Your task to perform on an android device: Open Wikipedia Image 0: 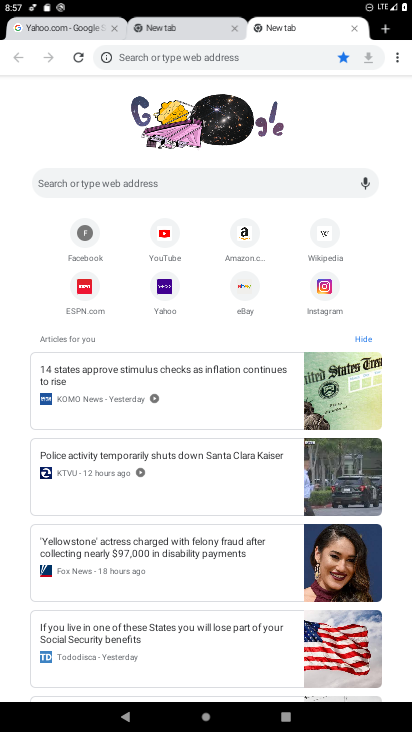
Step 0: click (265, 184)
Your task to perform on an android device: Open Wikipedia Image 1: 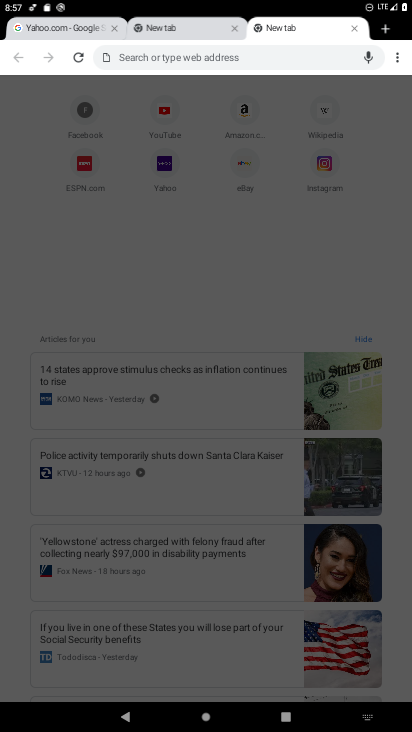
Step 1: type "Wikipedia"
Your task to perform on an android device: Open Wikipedia Image 2: 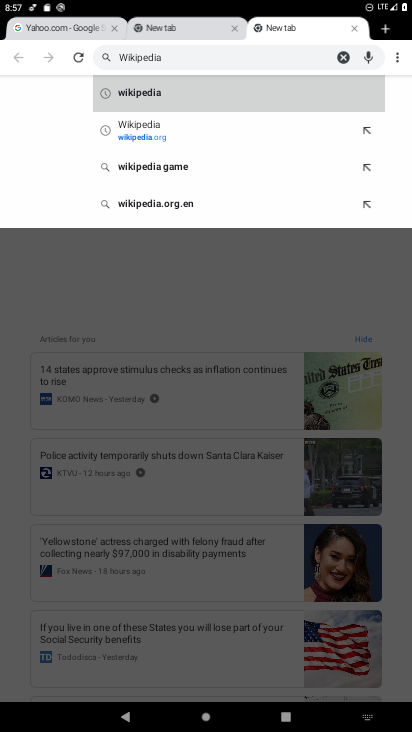
Step 2: click (160, 100)
Your task to perform on an android device: Open Wikipedia Image 3: 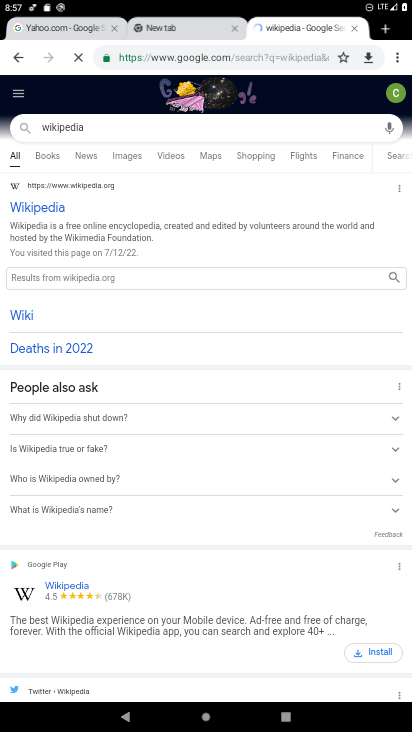
Step 3: task complete